Your task to perform on an android device: turn on location history Image 0: 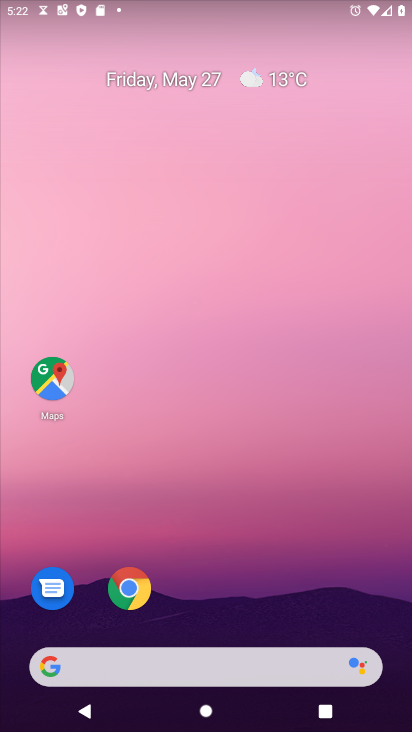
Step 0: drag from (227, 581) to (291, 126)
Your task to perform on an android device: turn on location history Image 1: 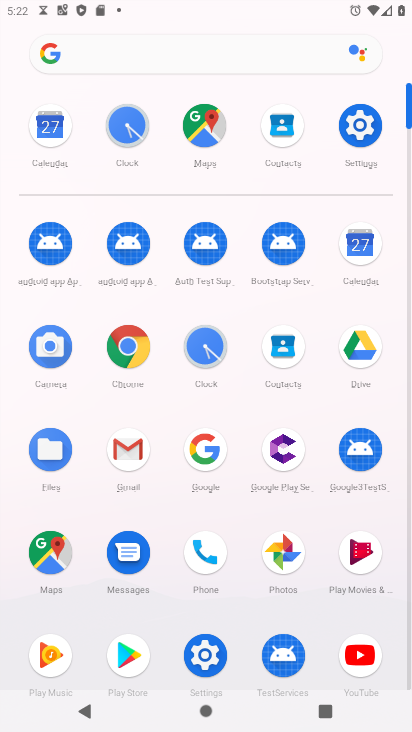
Step 1: click (359, 135)
Your task to perform on an android device: turn on location history Image 2: 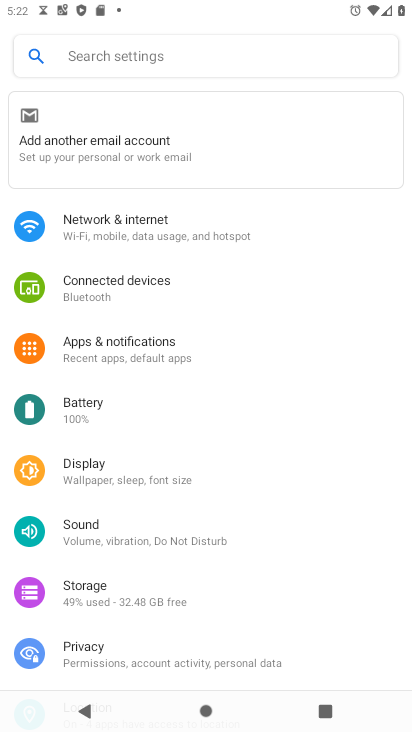
Step 2: drag from (132, 611) to (223, 133)
Your task to perform on an android device: turn on location history Image 3: 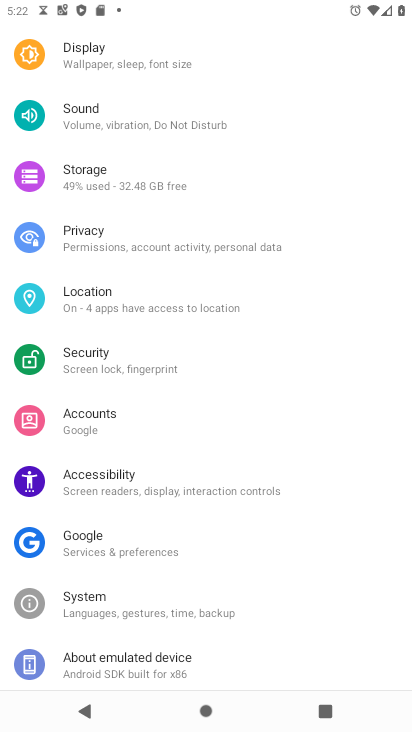
Step 3: click (124, 301)
Your task to perform on an android device: turn on location history Image 4: 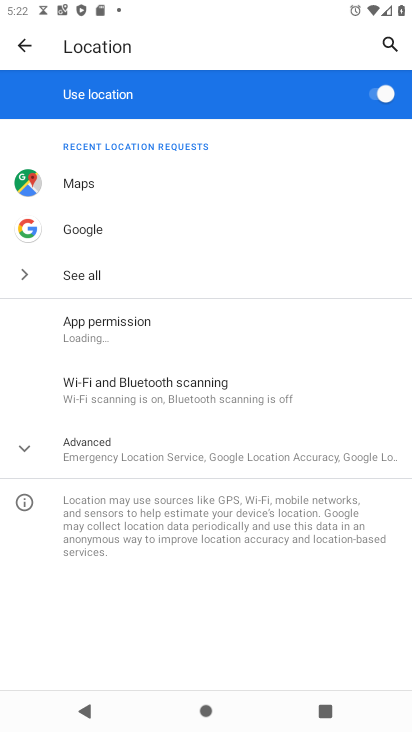
Step 4: click (131, 453)
Your task to perform on an android device: turn on location history Image 5: 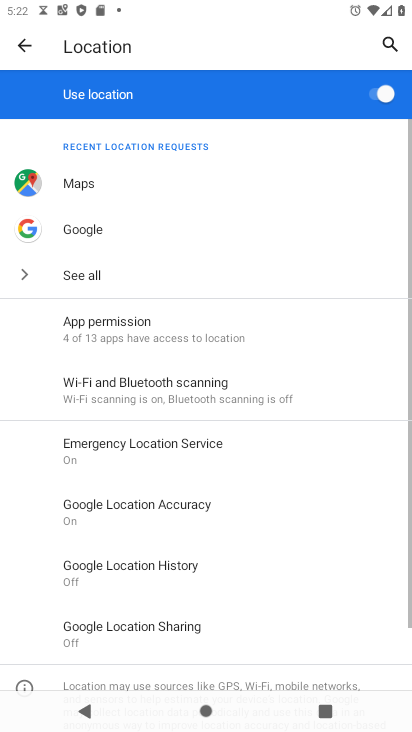
Step 5: click (117, 565)
Your task to perform on an android device: turn on location history Image 6: 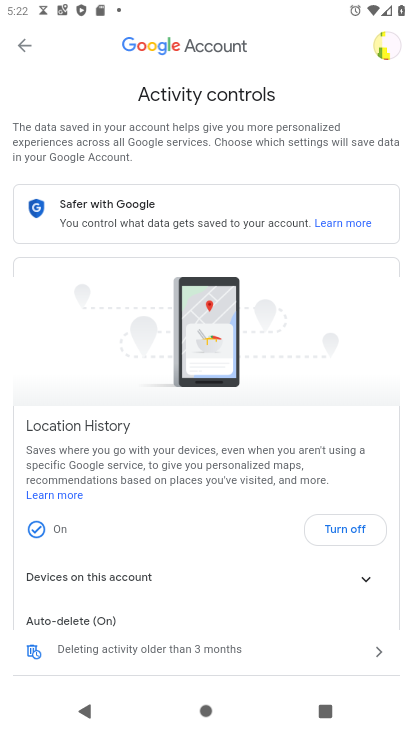
Step 6: task complete